Your task to perform on an android device: open a bookmark in the chrome app Image 0: 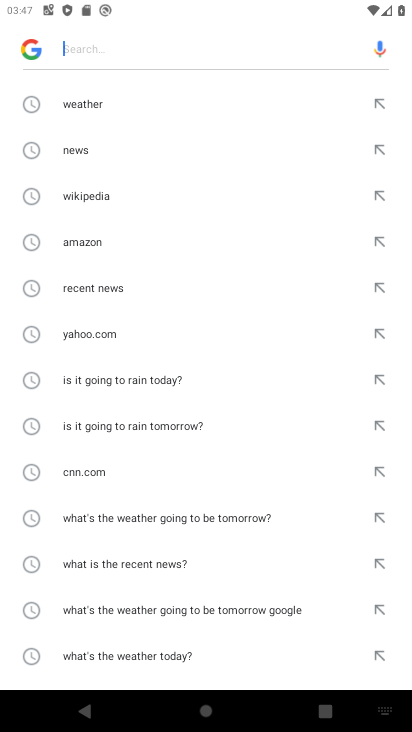
Step 0: press home button
Your task to perform on an android device: open a bookmark in the chrome app Image 1: 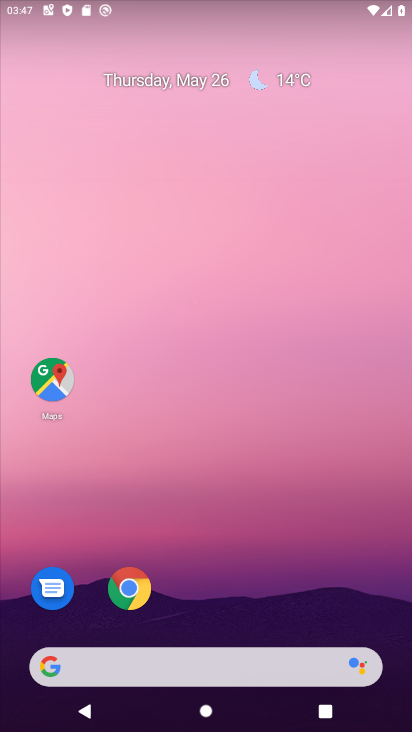
Step 1: click (135, 594)
Your task to perform on an android device: open a bookmark in the chrome app Image 2: 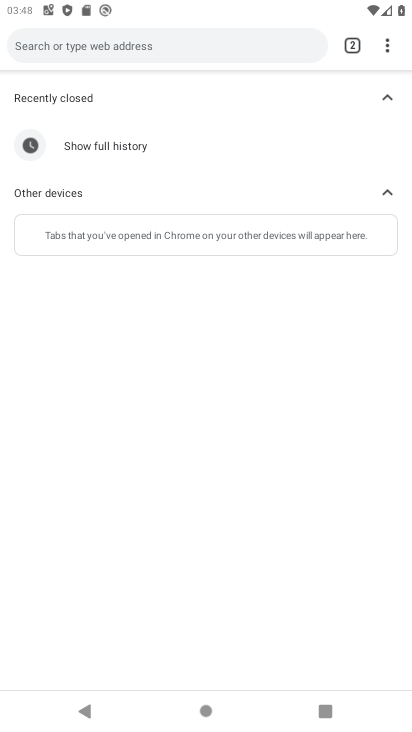
Step 2: click (384, 51)
Your task to perform on an android device: open a bookmark in the chrome app Image 3: 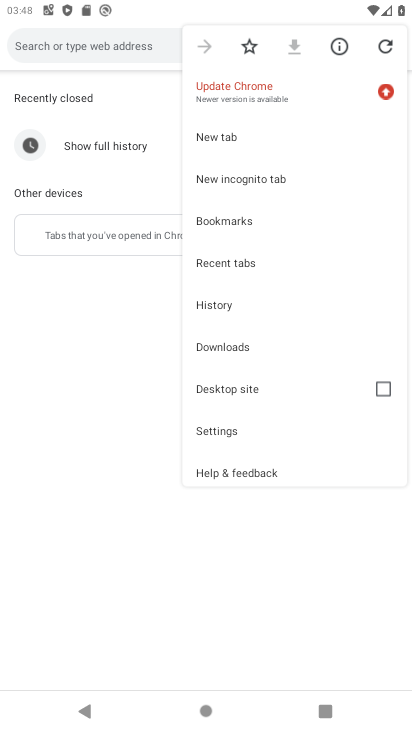
Step 3: click (280, 211)
Your task to perform on an android device: open a bookmark in the chrome app Image 4: 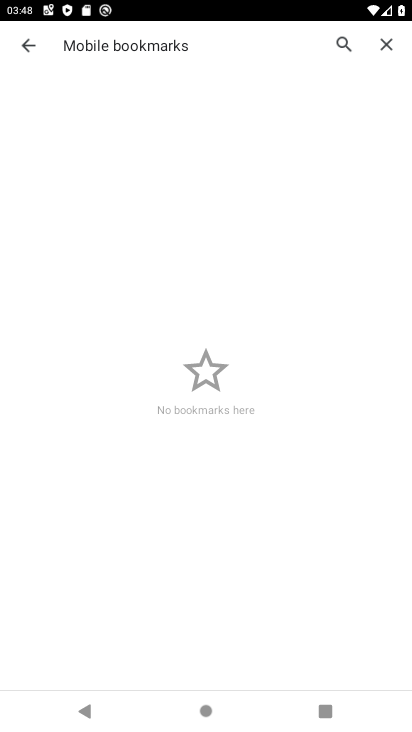
Step 4: task complete